Your task to perform on an android device: Empty the shopping cart on costco.com. Search for razer naga on costco.com, select the first entry, and add it to the cart. Image 0: 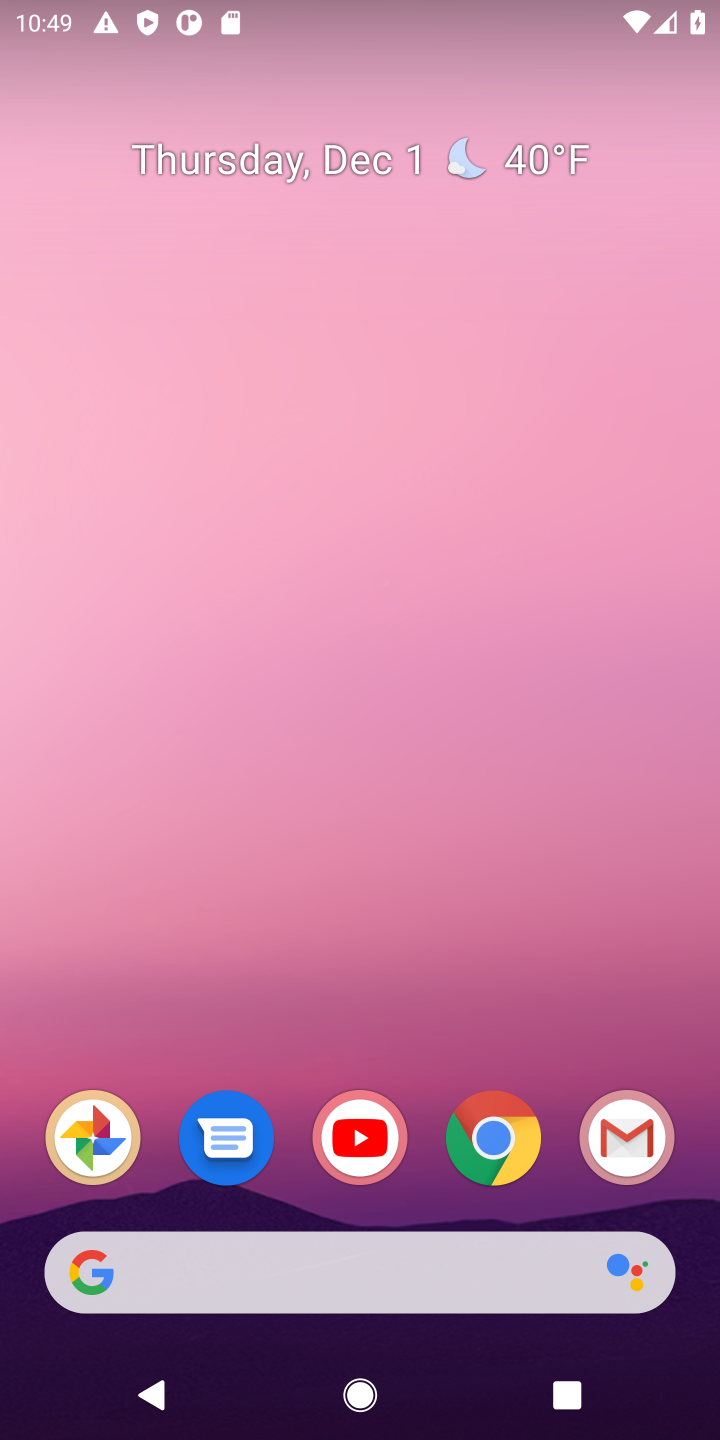
Step 0: drag from (365, 1215) to (377, 593)
Your task to perform on an android device: Empty the shopping cart on costco.com. Search for razer naga on costco.com, select the first entry, and add it to the cart. Image 1: 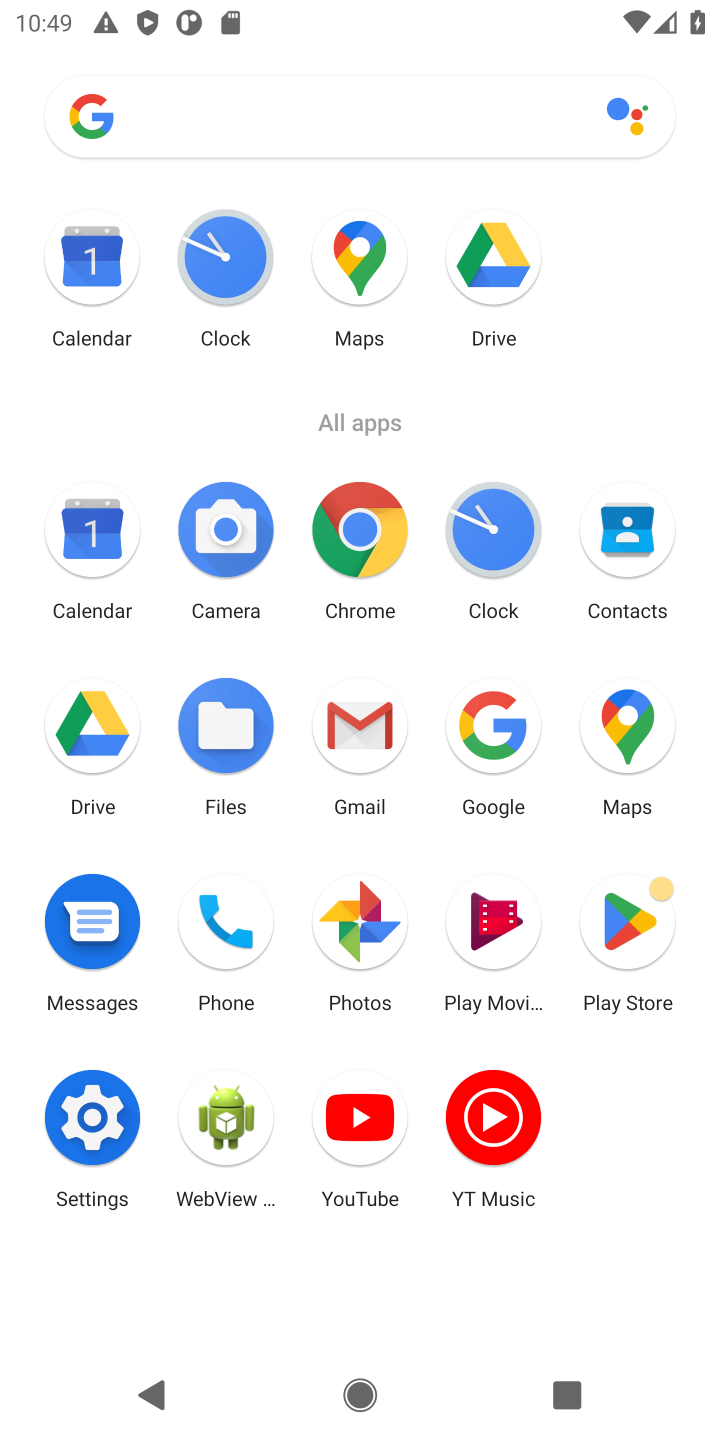
Step 1: click (516, 759)
Your task to perform on an android device: Empty the shopping cart on costco.com. Search for razer naga on costco.com, select the first entry, and add it to the cart. Image 2: 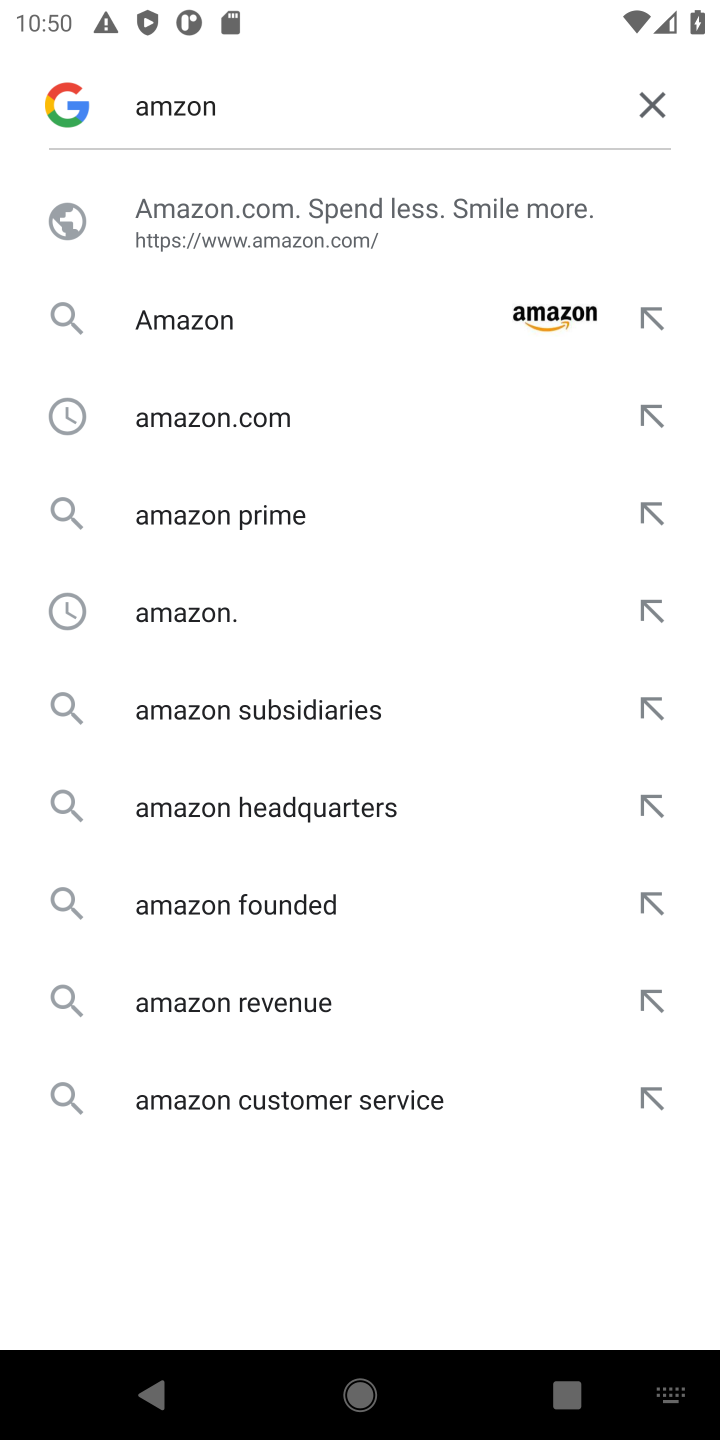
Step 2: click (651, 101)
Your task to perform on an android device: Empty the shopping cart on costco.com. Search for razer naga on costco.com, select the first entry, and add it to the cart. Image 3: 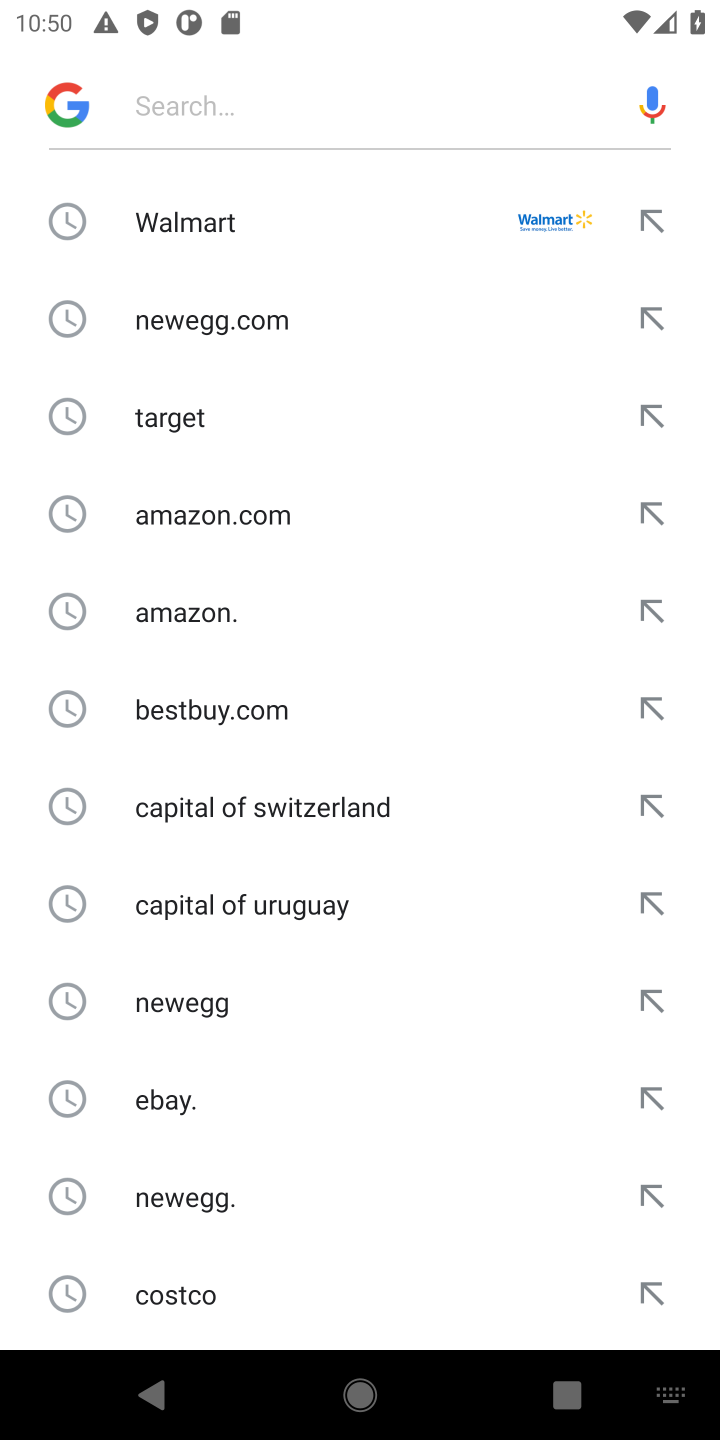
Step 3: type "costco.com"
Your task to perform on an android device: Empty the shopping cart on costco.com. Search for razer naga on costco.com, select the first entry, and add it to the cart. Image 4: 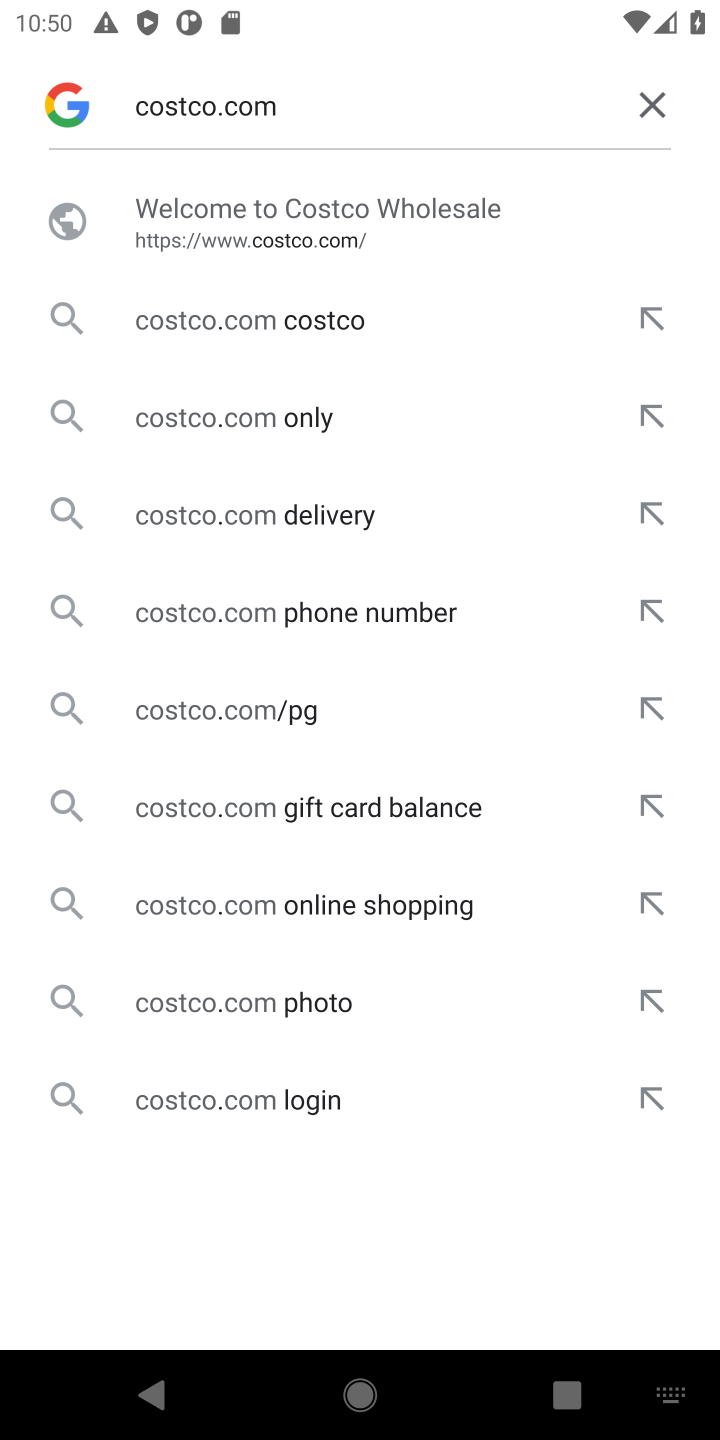
Step 4: click (214, 231)
Your task to perform on an android device: Empty the shopping cart on costco.com. Search for razer naga on costco.com, select the first entry, and add it to the cart. Image 5: 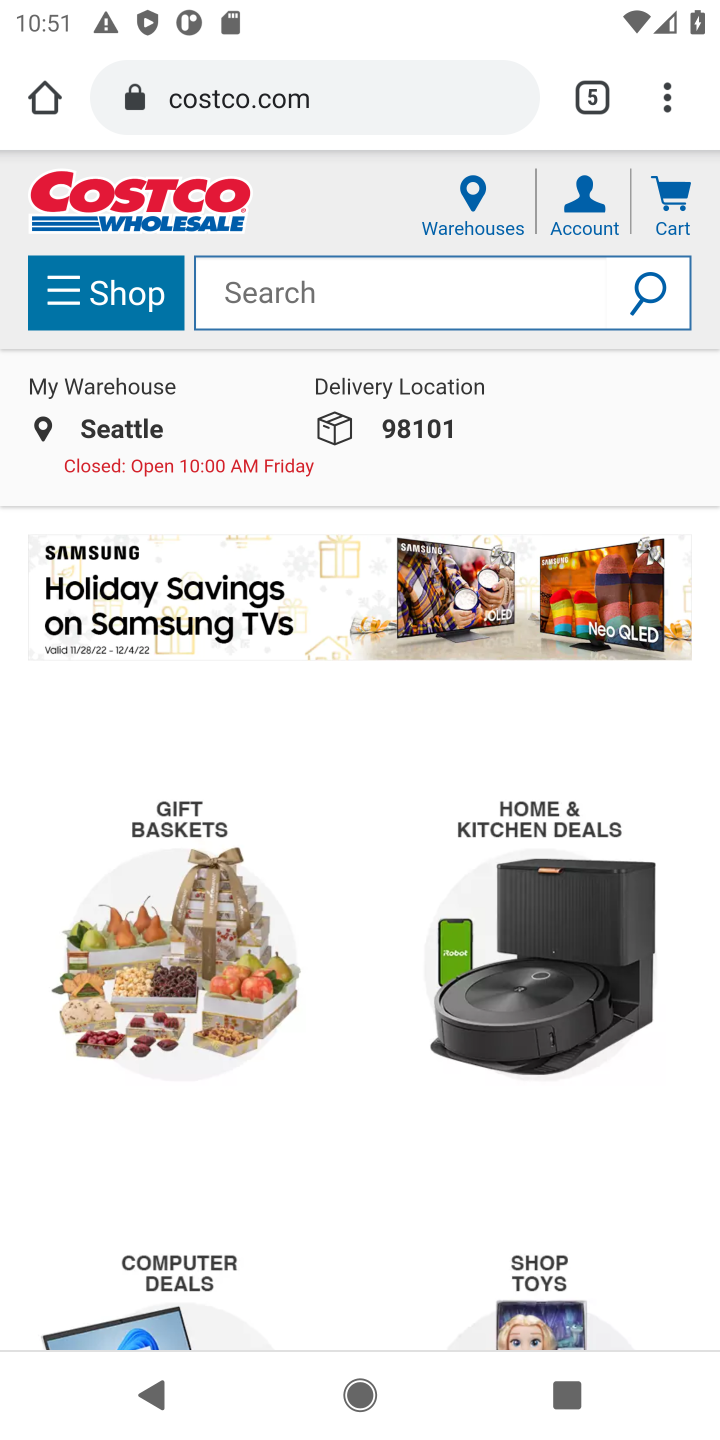
Step 5: click (392, 305)
Your task to perform on an android device: Empty the shopping cart on costco.com. Search for razer naga on costco.com, select the first entry, and add it to the cart. Image 6: 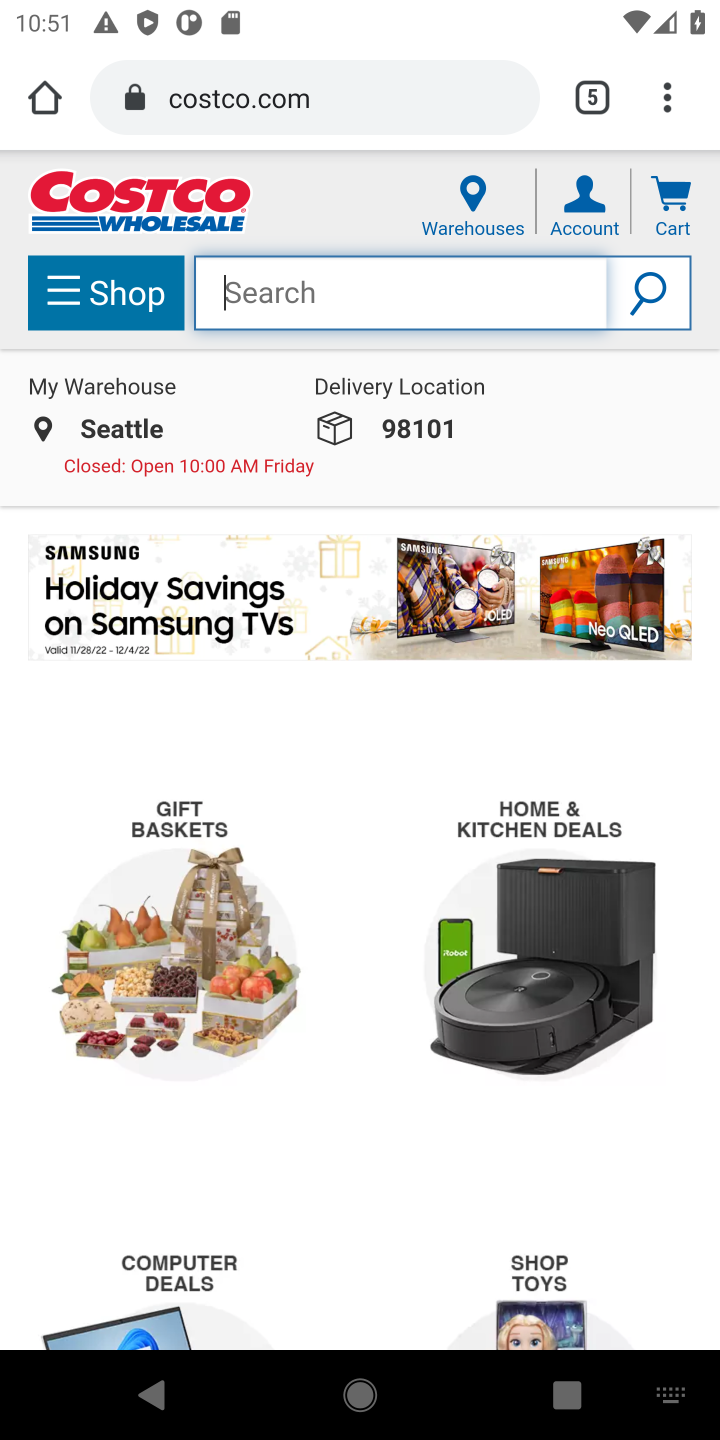
Step 6: type "razer naga"
Your task to perform on an android device: Empty the shopping cart on costco.com. Search for razer naga on costco.com, select the first entry, and add it to the cart. Image 7: 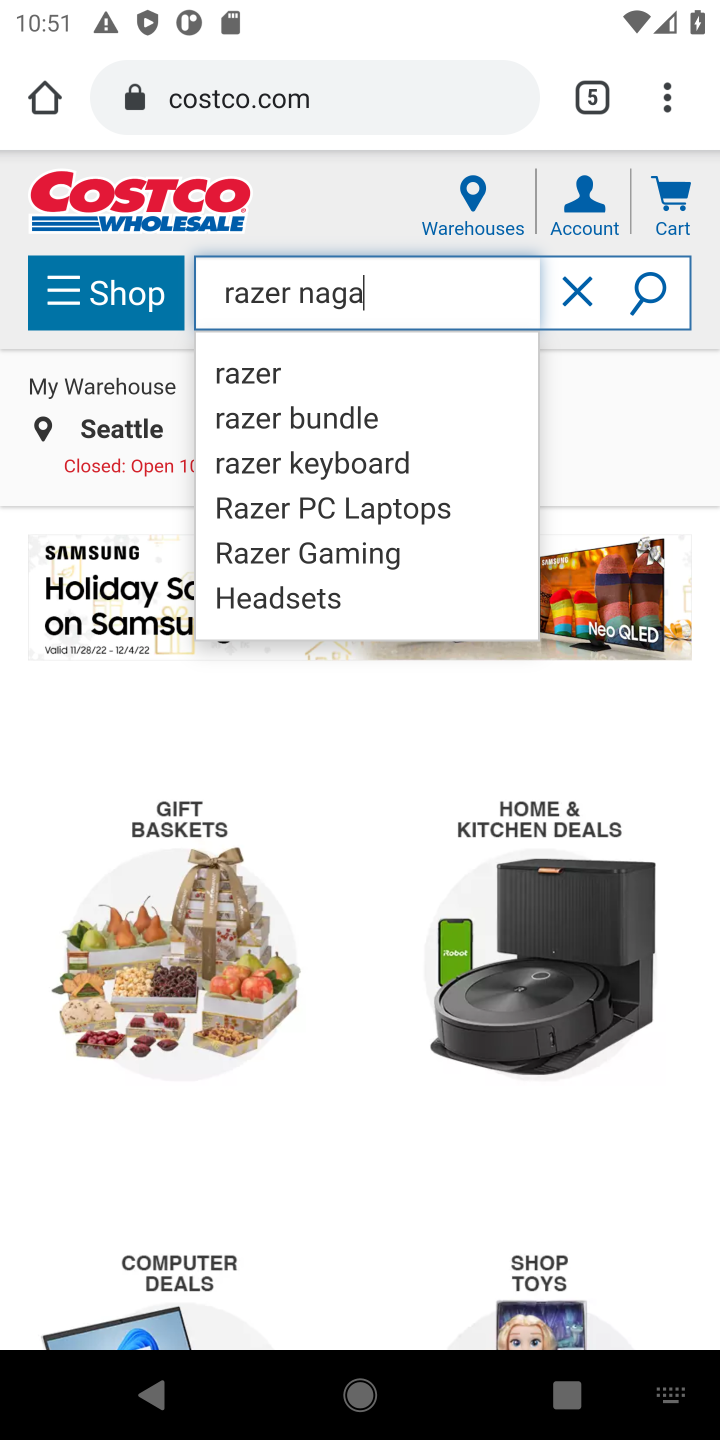
Step 7: click (653, 285)
Your task to perform on an android device: Empty the shopping cart on costco.com. Search for razer naga on costco.com, select the first entry, and add it to the cart. Image 8: 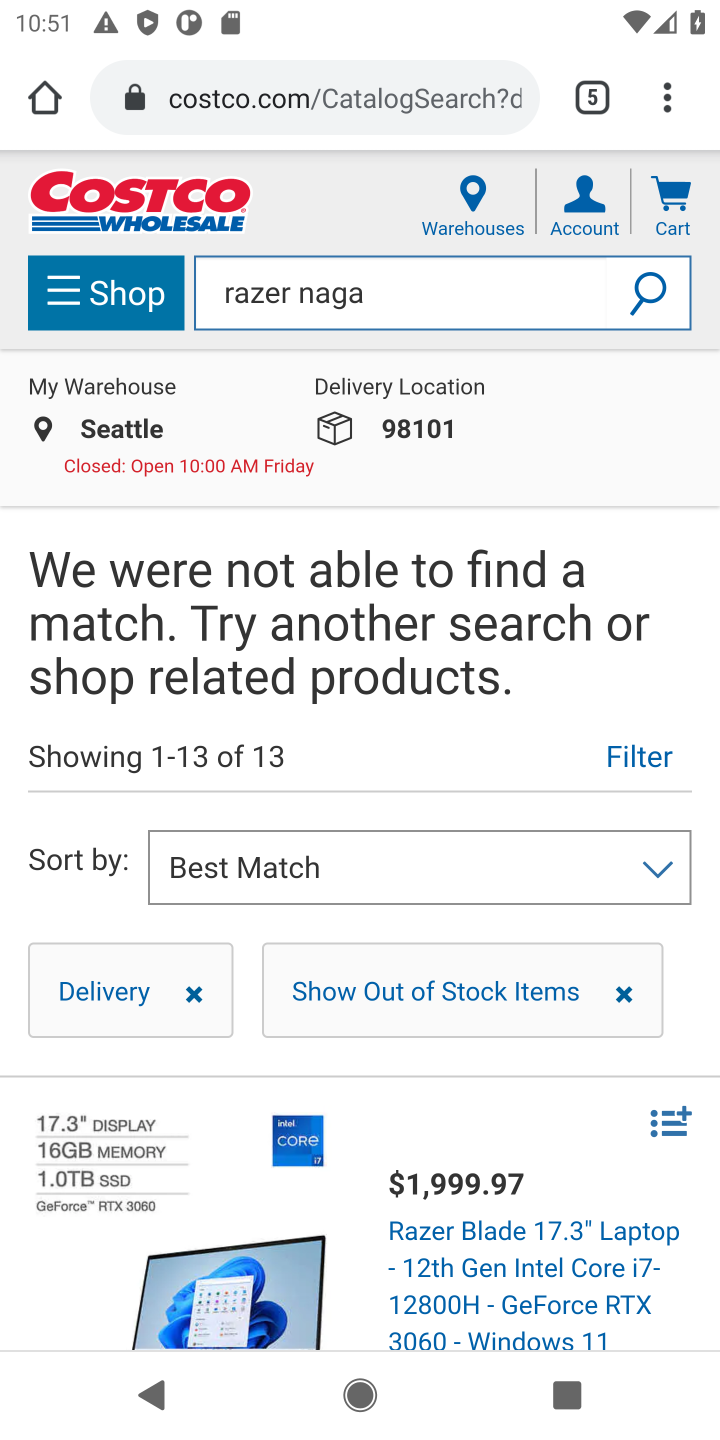
Step 8: click (437, 1259)
Your task to perform on an android device: Empty the shopping cart on costco.com. Search for razer naga on costco.com, select the first entry, and add it to the cart. Image 9: 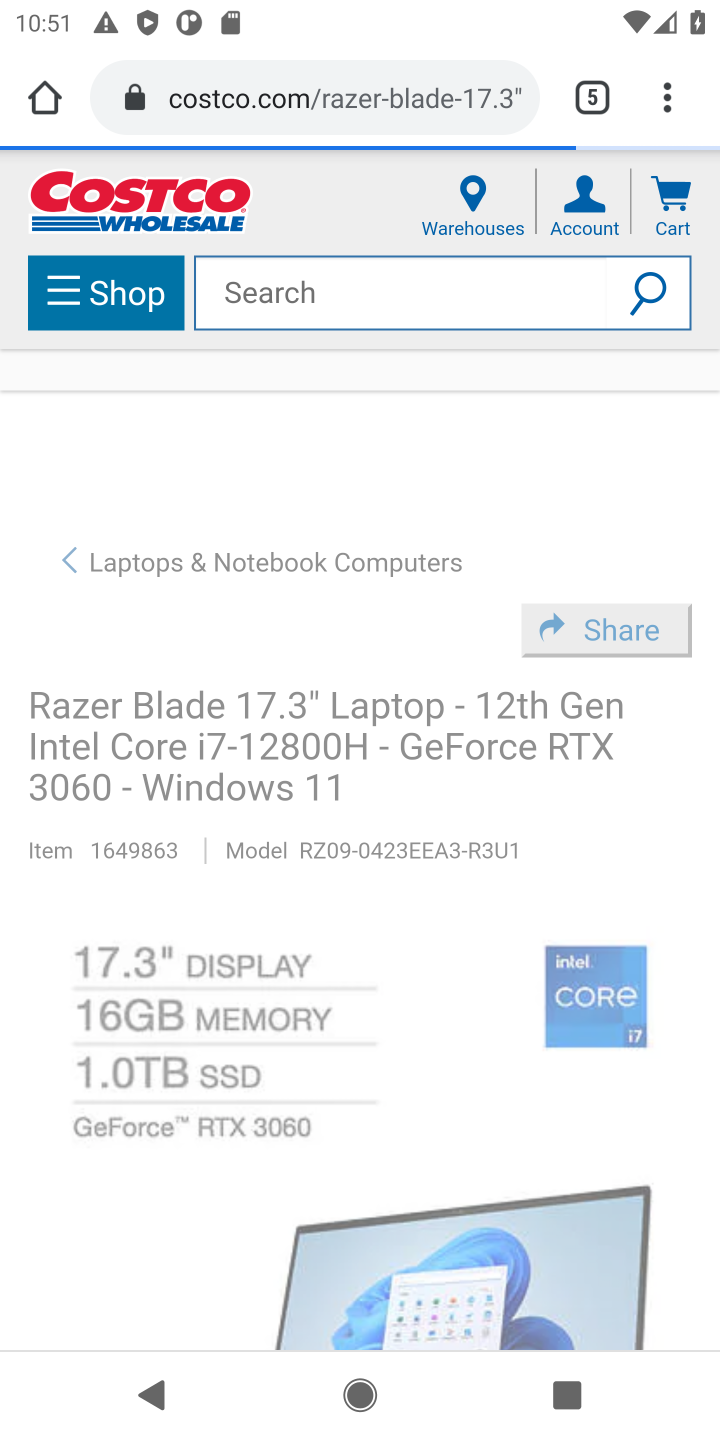
Step 9: drag from (433, 1253) to (417, 641)
Your task to perform on an android device: Empty the shopping cart on costco.com. Search for razer naga on costco.com, select the first entry, and add it to the cart. Image 10: 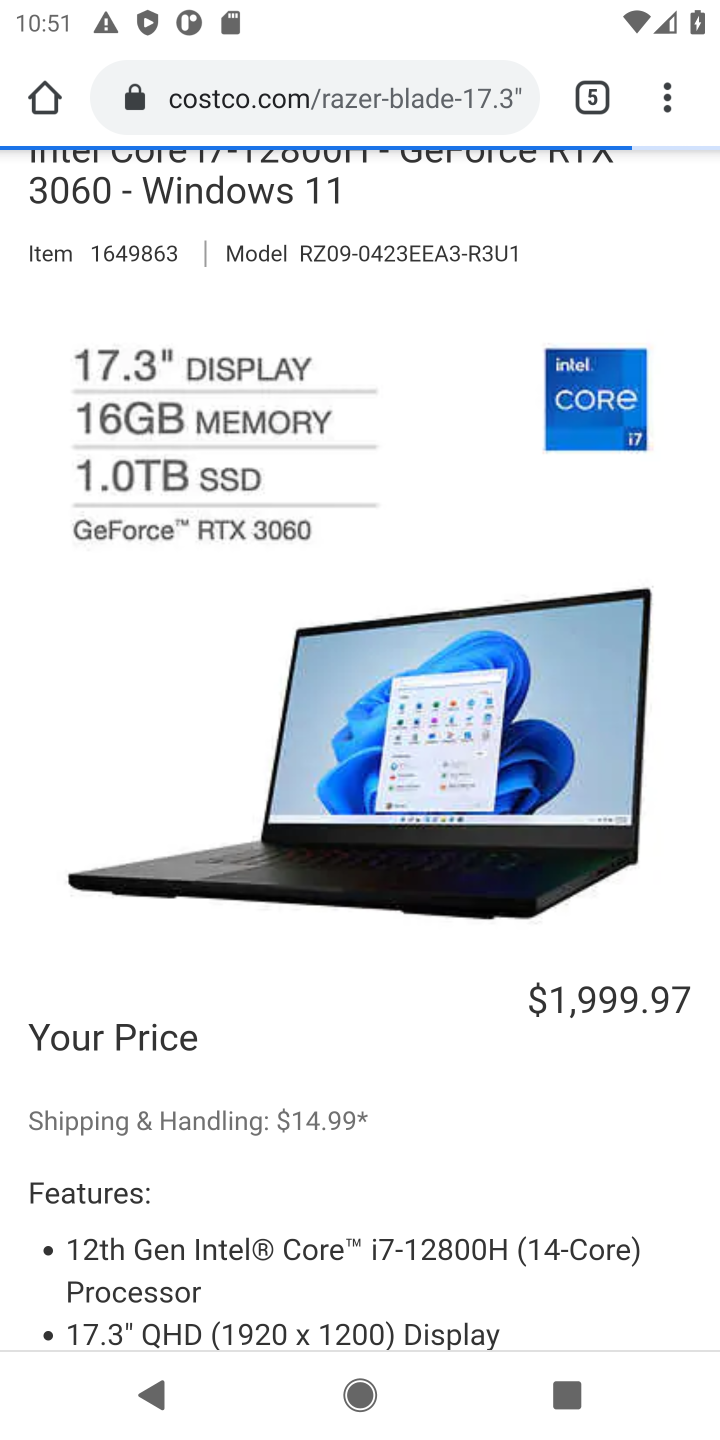
Step 10: drag from (407, 958) to (417, 542)
Your task to perform on an android device: Empty the shopping cart on costco.com. Search for razer naga on costco.com, select the first entry, and add it to the cart. Image 11: 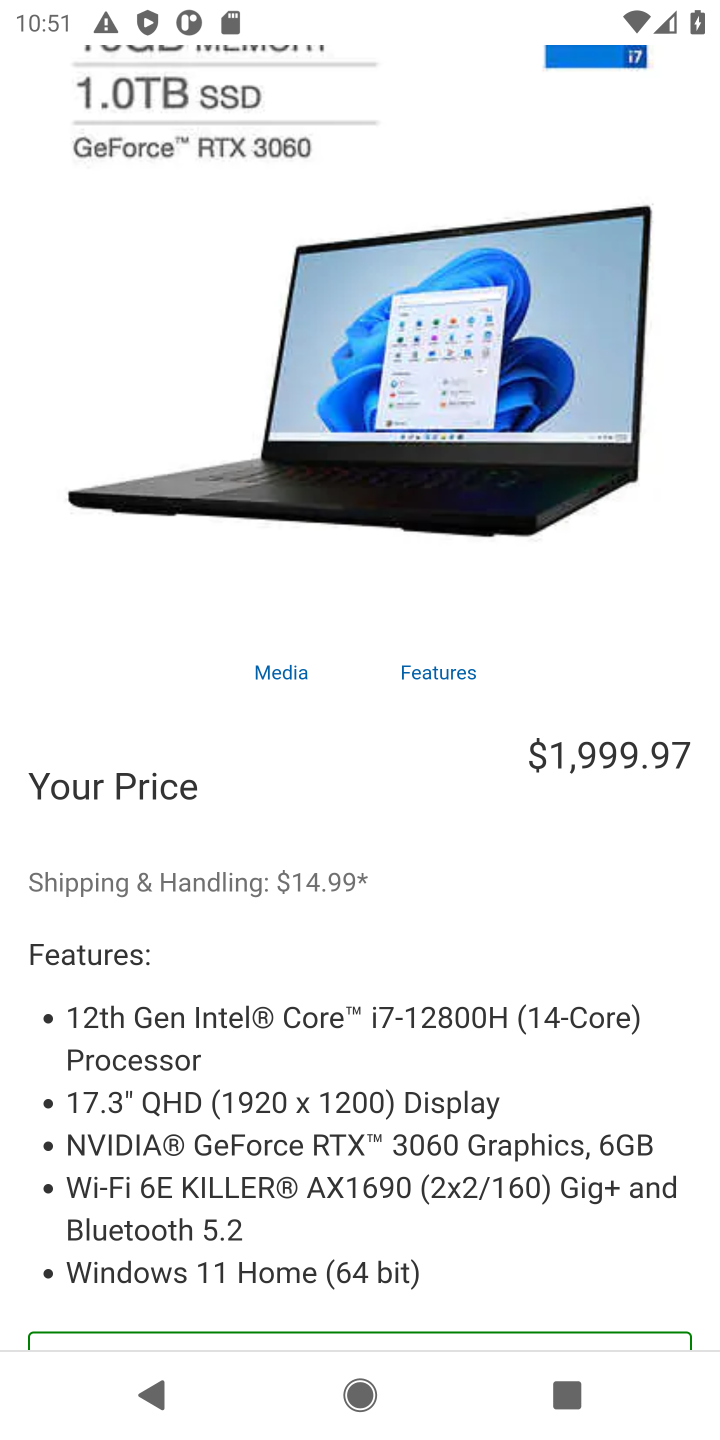
Step 11: drag from (400, 912) to (417, 398)
Your task to perform on an android device: Empty the shopping cart on costco.com. Search for razer naga on costco.com, select the first entry, and add it to the cart. Image 12: 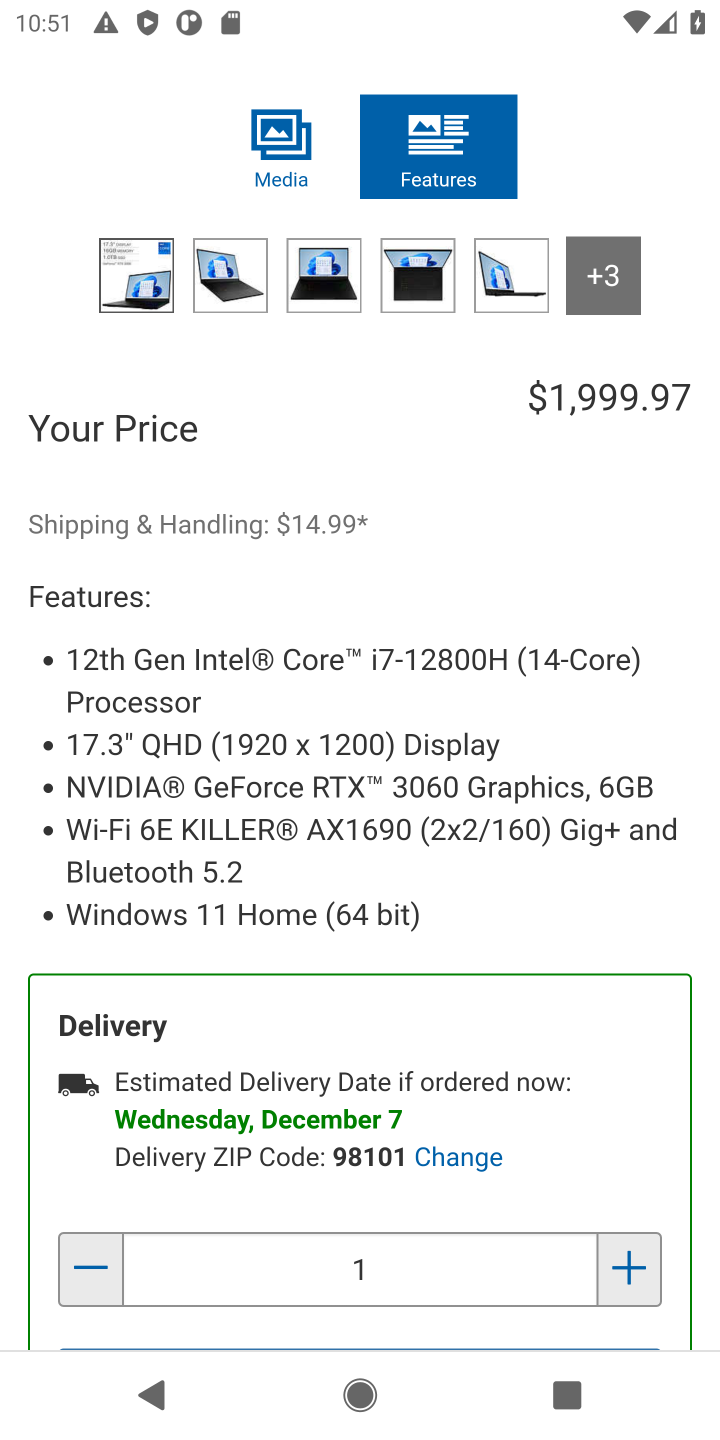
Step 12: drag from (342, 1167) to (444, 487)
Your task to perform on an android device: Empty the shopping cart on costco.com. Search for razer naga on costco.com, select the first entry, and add it to the cart. Image 13: 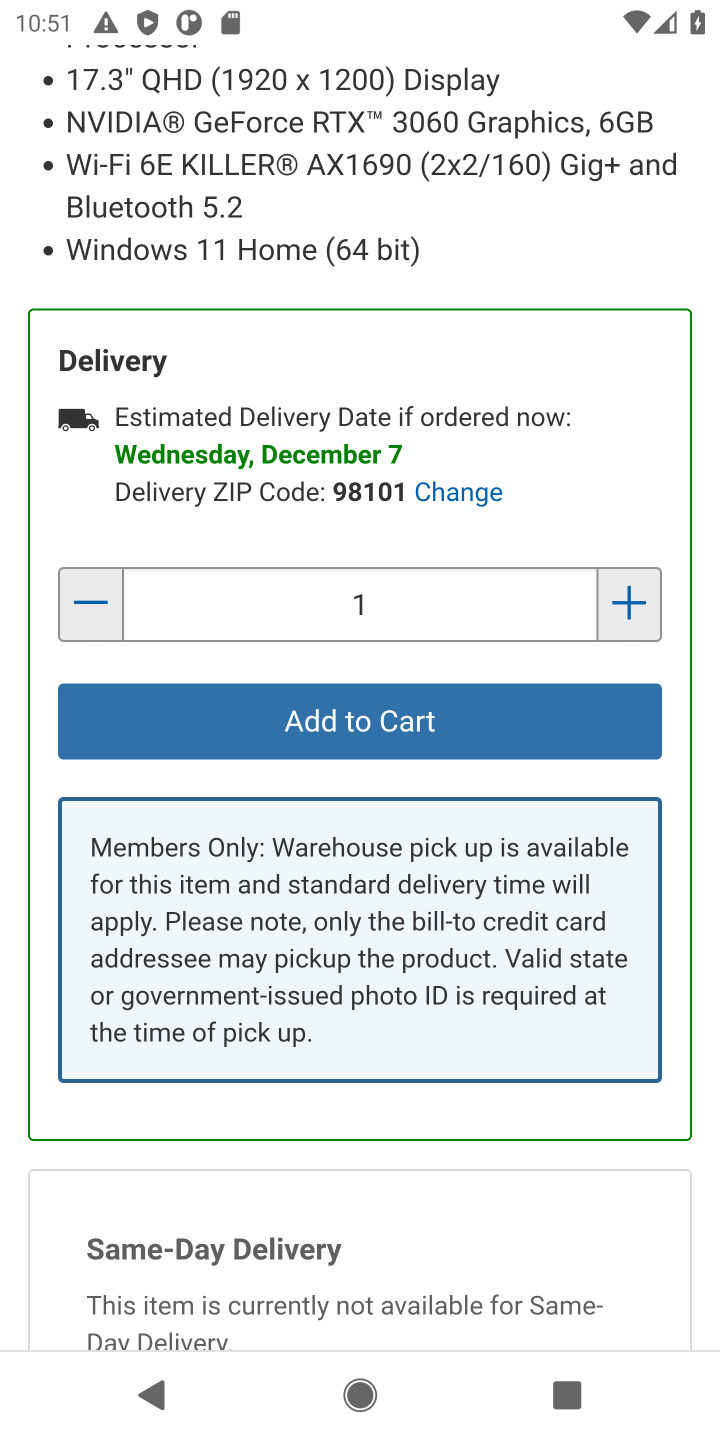
Step 13: click (382, 724)
Your task to perform on an android device: Empty the shopping cart on costco.com. Search for razer naga on costco.com, select the first entry, and add it to the cart. Image 14: 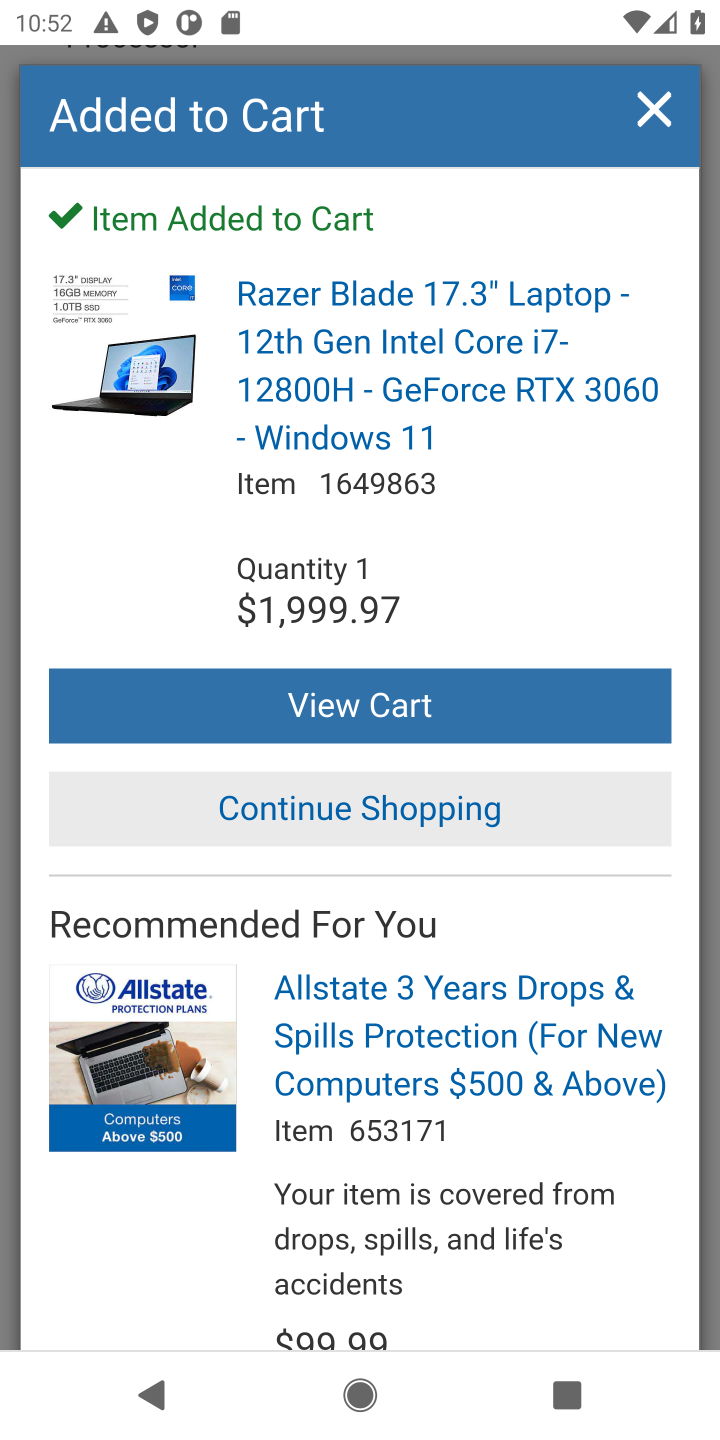
Step 14: task complete